Your task to perform on an android device: turn on data saver in the chrome app Image 0: 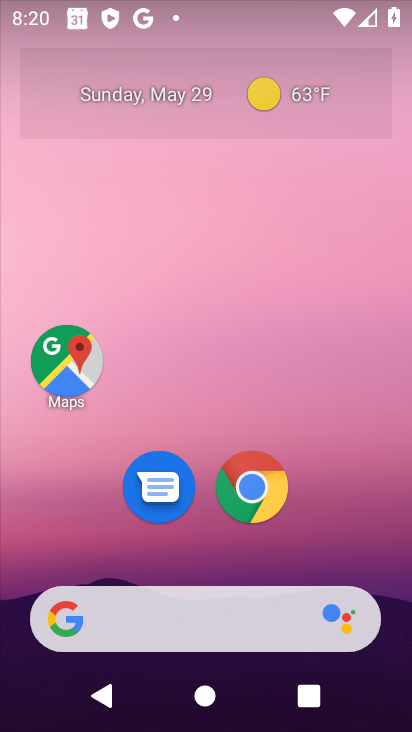
Step 0: click (249, 487)
Your task to perform on an android device: turn on data saver in the chrome app Image 1: 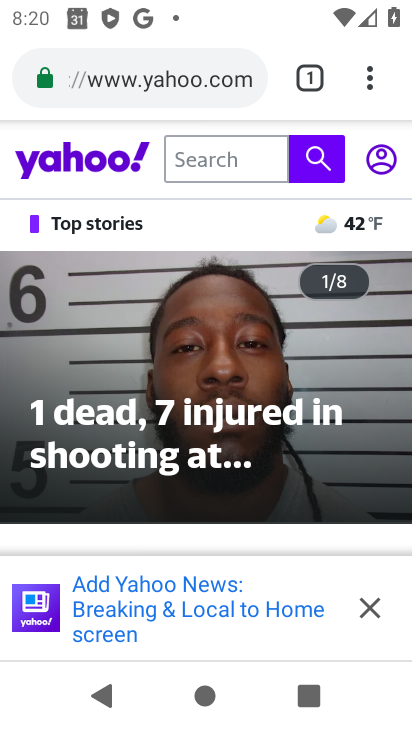
Step 1: click (370, 80)
Your task to perform on an android device: turn on data saver in the chrome app Image 2: 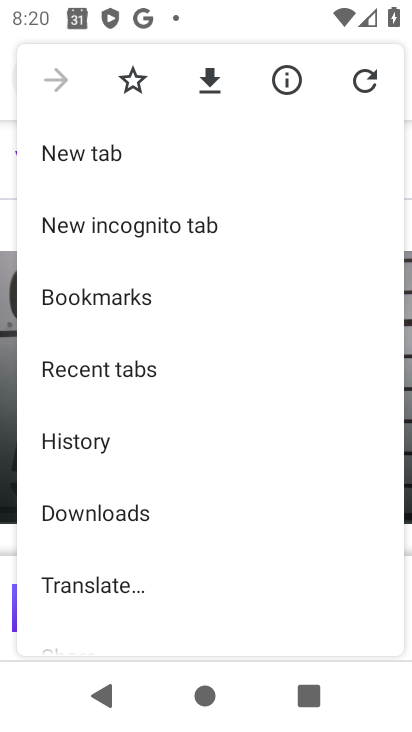
Step 2: drag from (173, 544) to (228, 450)
Your task to perform on an android device: turn on data saver in the chrome app Image 3: 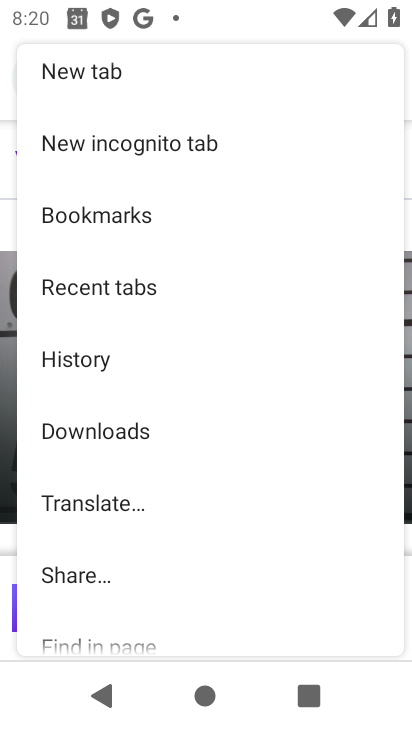
Step 3: drag from (148, 541) to (204, 457)
Your task to perform on an android device: turn on data saver in the chrome app Image 4: 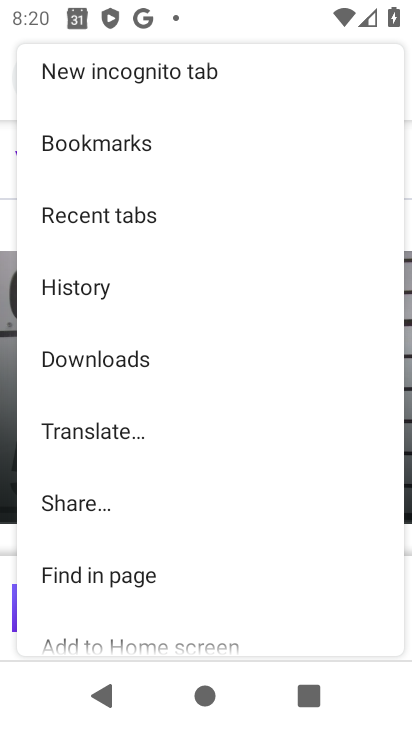
Step 4: drag from (150, 536) to (213, 427)
Your task to perform on an android device: turn on data saver in the chrome app Image 5: 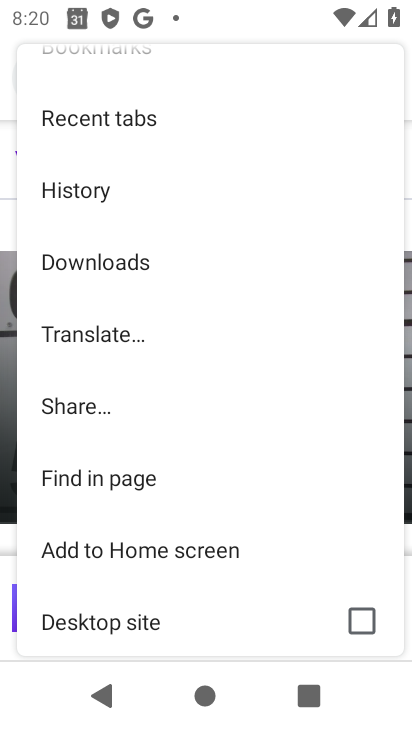
Step 5: drag from (155, 517) to (216, 415)
Your task to perform on an android device: turn on data saver in the chrome app Image 6: 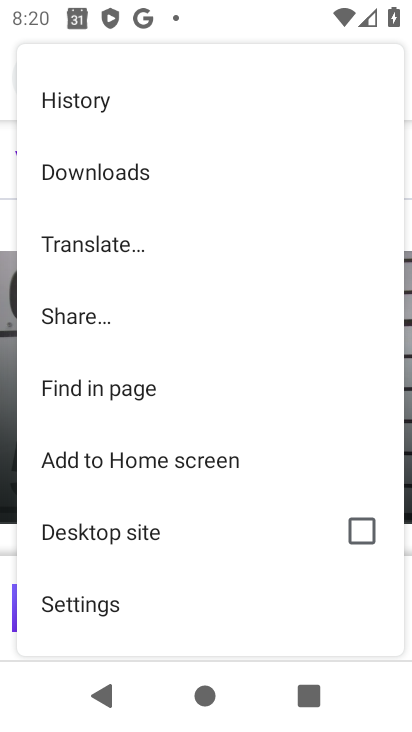
Step 6: drag from (150, 498) to (209, 410)
Your task to perform on an android device: turn on data saver in the chrome app Image 7: 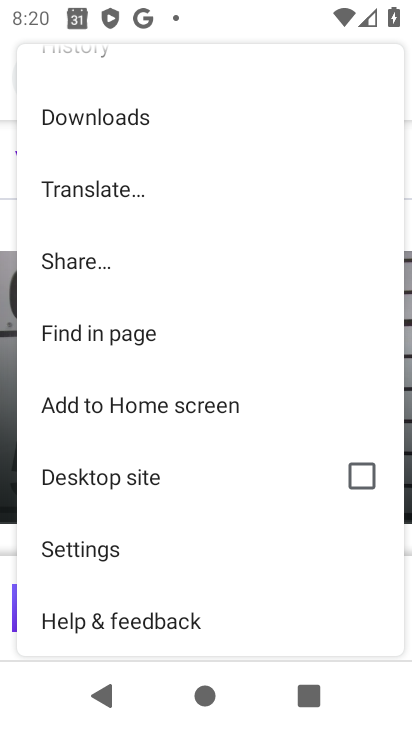
Step 7: click (103, 559)
Your task to perform on an android device: turn on data saver in the chrome app Image 8: 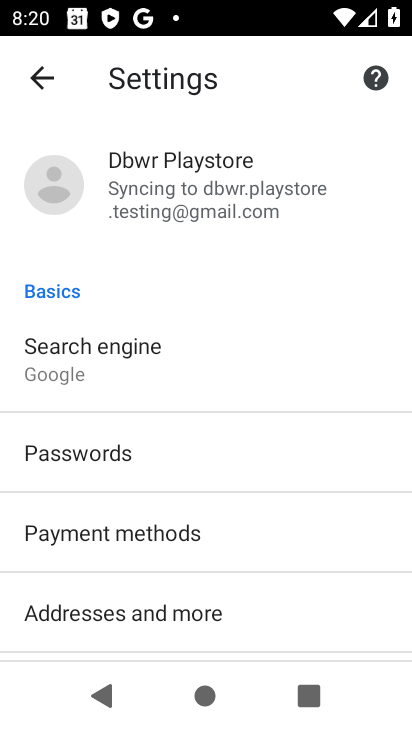
Step 8: drag from (139, 509) to (201, 419)
Your task to perform on an android device: turn on data saver in the chrome app Image 9: 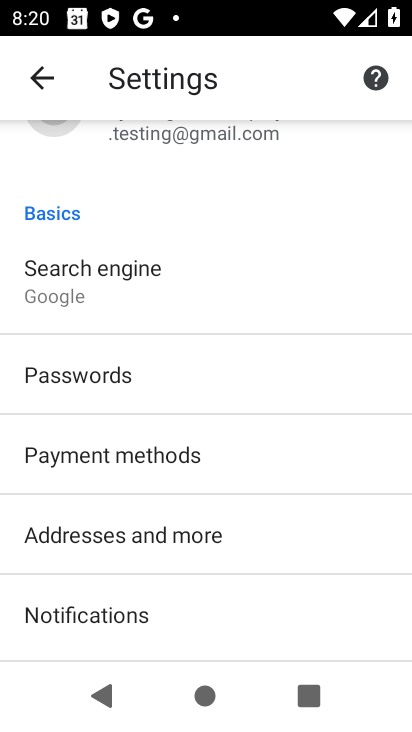
Step 9: drag from (114, 556) to (194, 459)
Your task to perform on an android device: turn on data saver in the chrome app Image 10: 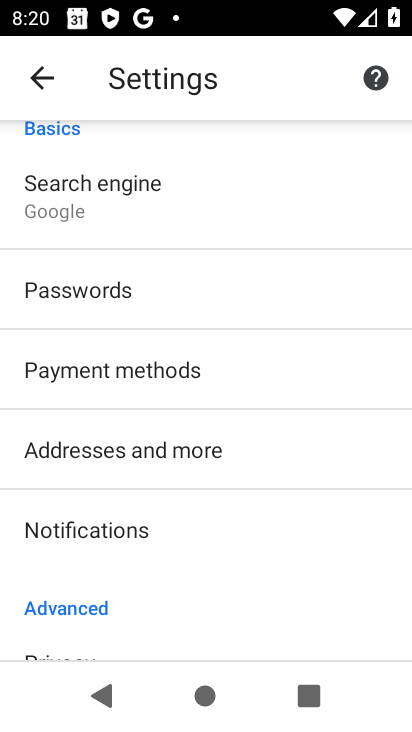
Step 10: drag from (133, 567) to (208, 478)
Your task to perform on an android device: turn on data saver in the chrome app Image 11: 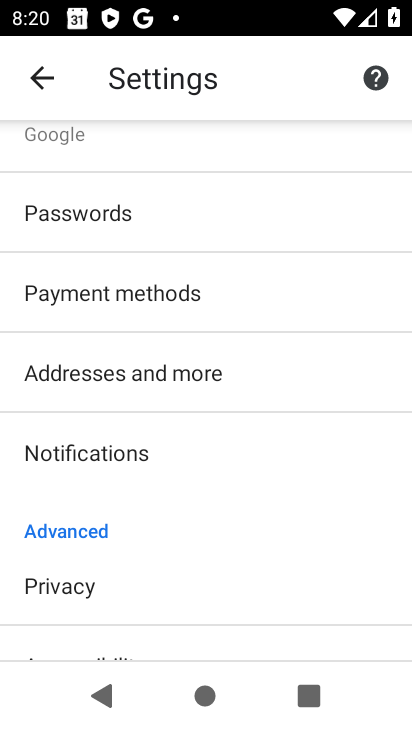
Step 11: drag from (123, 564) to (191, 476)
Your task to perform on an android device: turn on data saver in the chrome app Image 12: 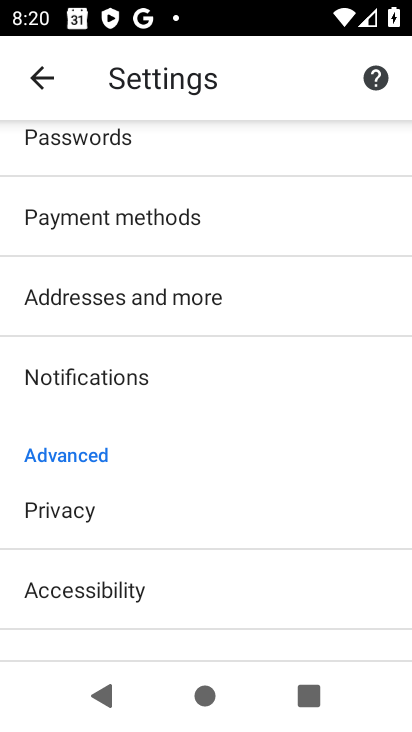
Step 12: drag from (168, 597) to (224, 503)
Your task to perform on an android device: turn on data saver in the chrome app Image 13: 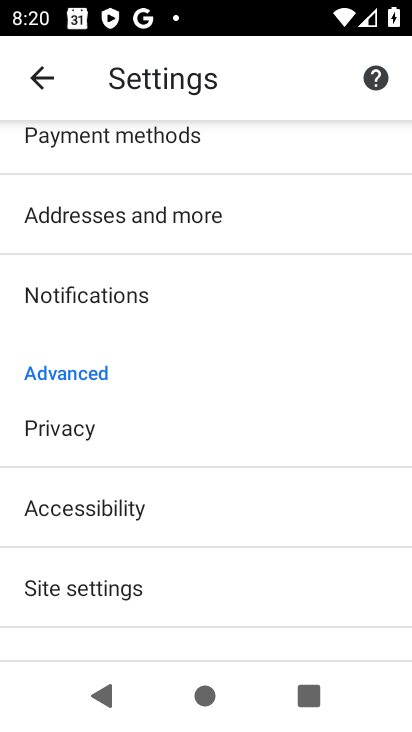
Step 13: drag from (159, 595) to (231, 500)
Your task to perform on an android device: turn on data saver in the chrome app Image 14: 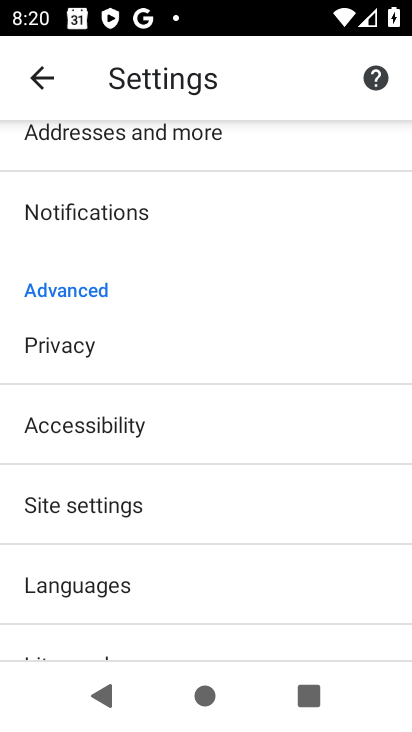
Step 14: drag from (130, 593) to (220, 490)
Your task to perform on an android device: turn on data saver in the chrome app Image 15: 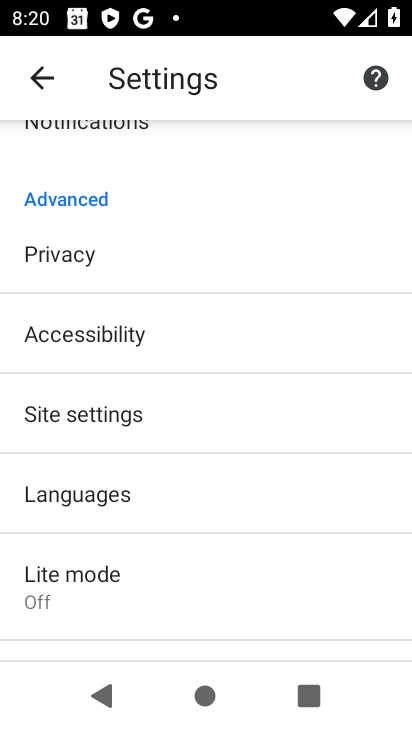
Step 15: click (105, 558)
Your task to perform on an android device: turn on data saver in the chrome app Image 16: 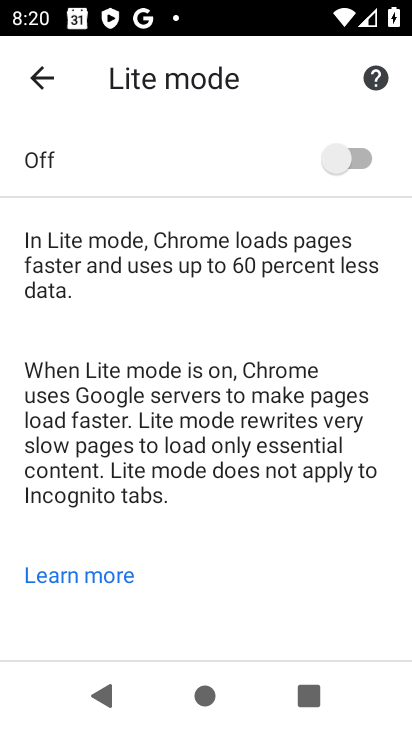
Step 16: click (319, 164)
Your task to perform on an android device: turn on data saver in the chrome app Image 17: 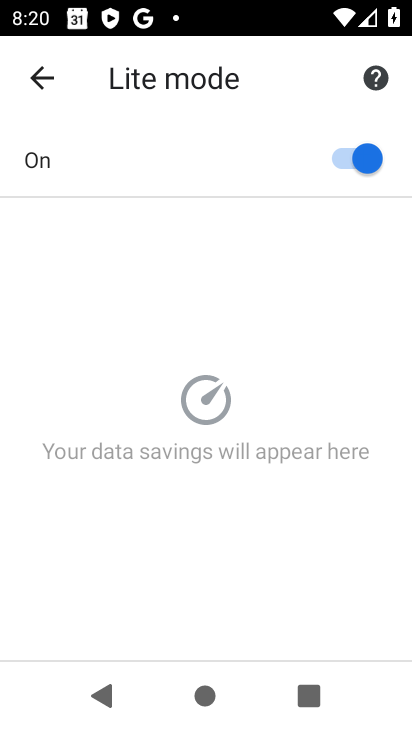
Step 17: task complete